Your task to perform on an android device: toggle notifications settings in the gmail app Image 0: 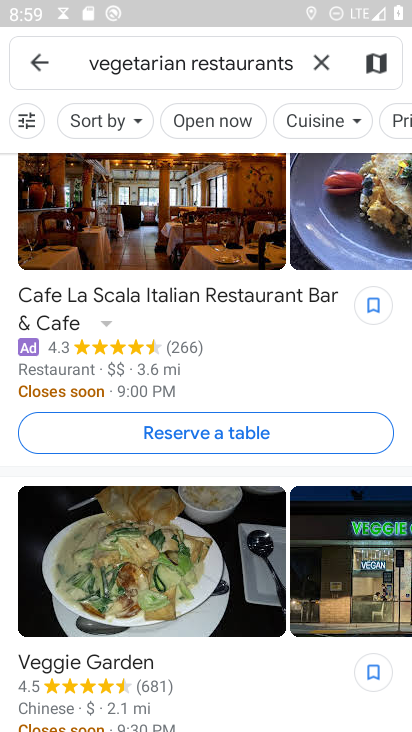
Step 0: press home button
Your task to perform on an android device: toggle notifications settings in the gmail app Image 1: 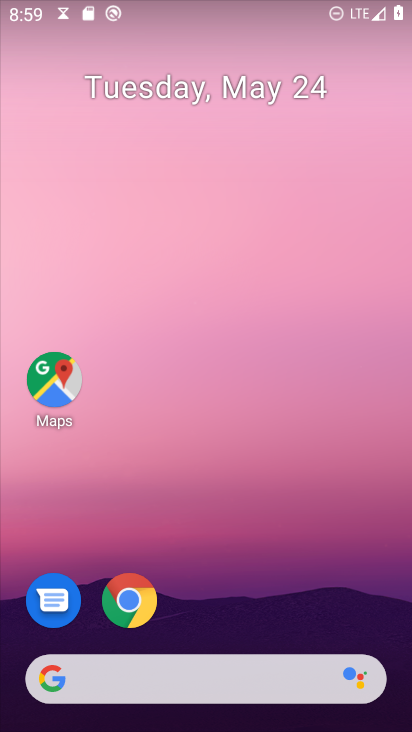
Step 1: drag from (230, 584) to (289, 71)
Your task to perform on an android device: toggle notifications settings in the gmail app Image 2: 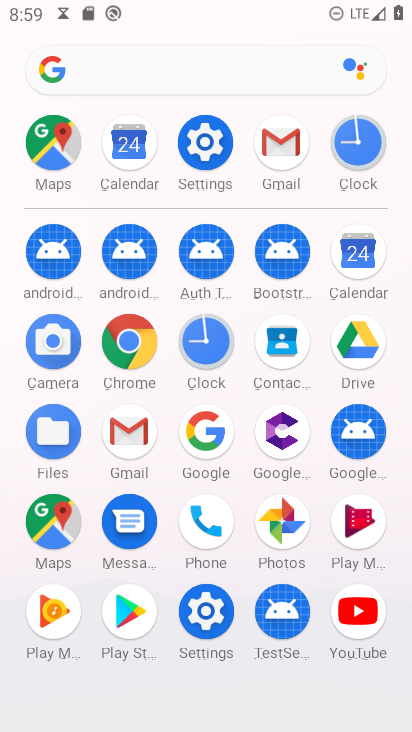
Step 2: click (283, 152)
Your task to perform on an android device: toggle notifications settings in the gmail app Image 3: 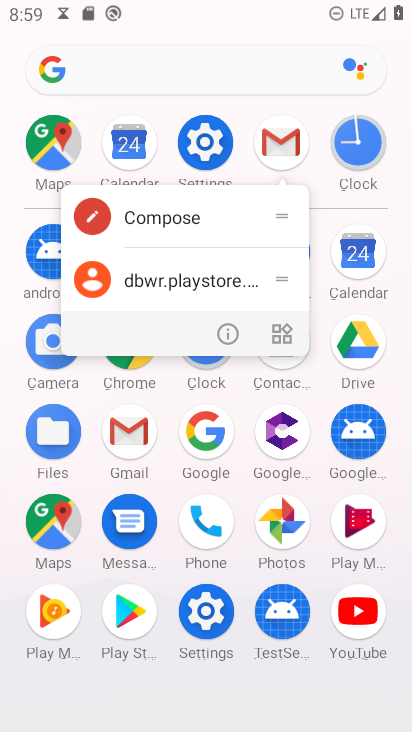
Step 3: click (231, 333)
Your task to perform on an android device: toggle notifications settings in the gmail app Image 4: 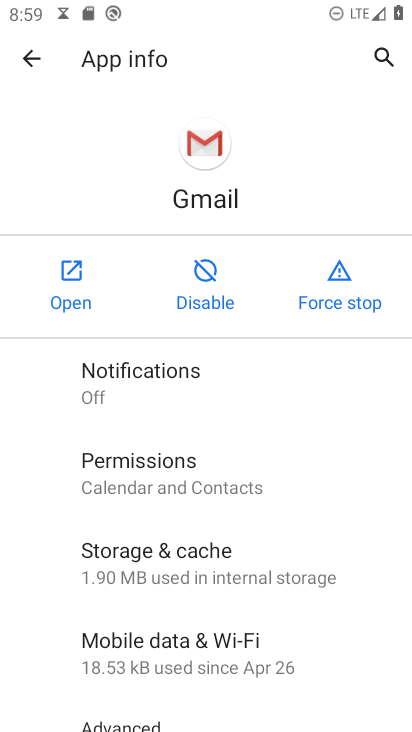
Step 4: click (188, 378)
Your task to perform on an android device: toggle notifications settings in the gmail app Image 5: 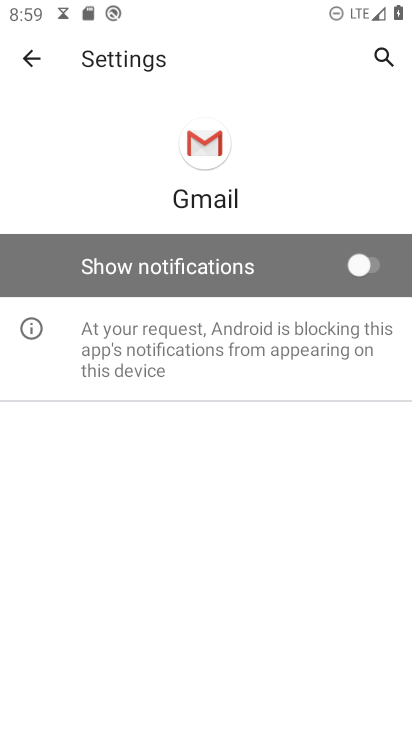
Step 5: click (363, 260)
Your task to perform on an android device: toggle notifications settings in the gmail app Image 6: 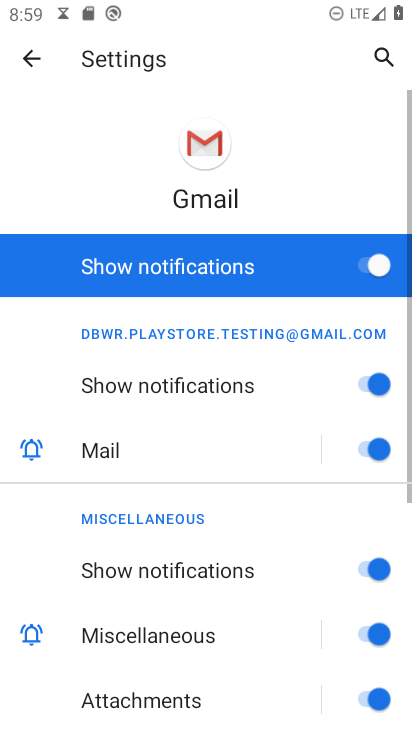
Step 6: task complete